Your task to perform on an android device: clear all cookies in the chrome app Image 0: 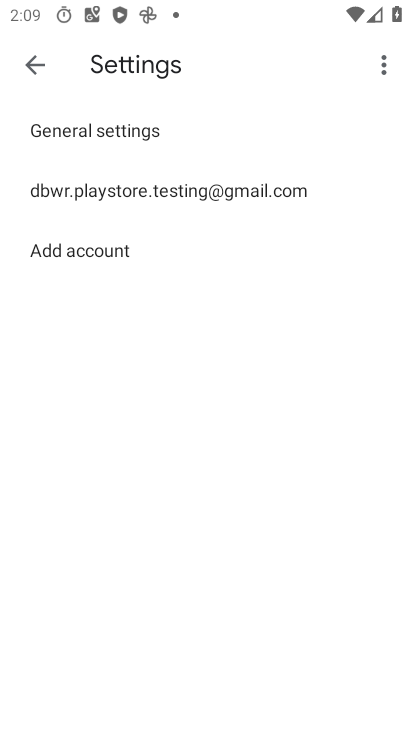
Step 0: press home button
Your task to perform on an android device: clear all cookies in the chrome app Image 1: 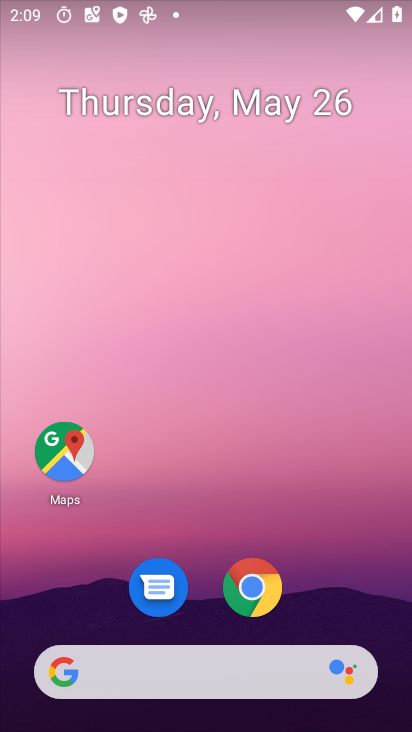
Step 1: drag from (360, 490) to (289, 1)
Your task to perform on an android device: clear all cookies in the chrome app Image 2: 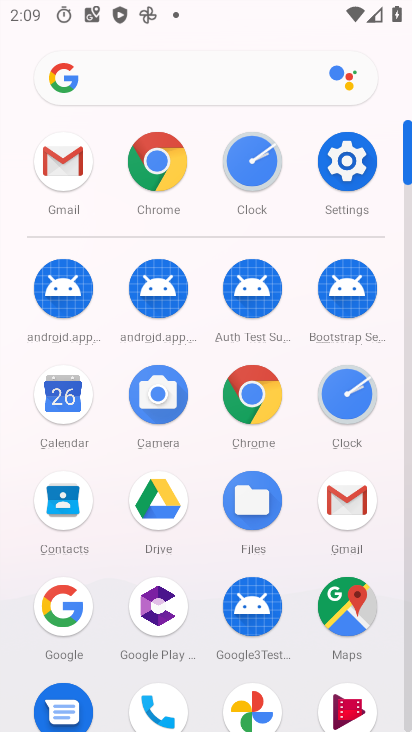
Step 2: click (260, 385)
Your task to perform on an android device: clear all cookies in the chrome app Image 3: 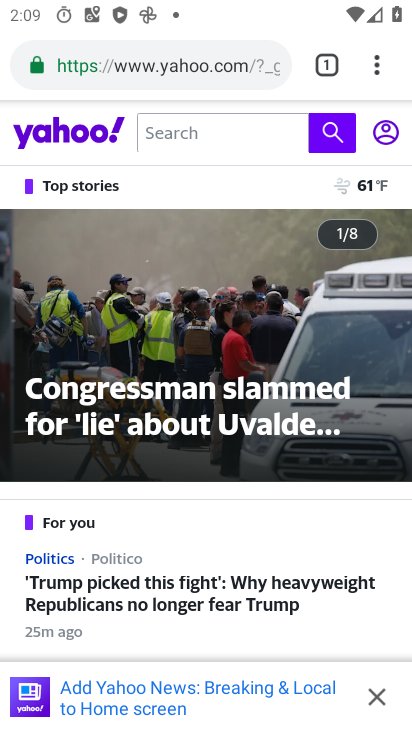
Step 3: click (377, 68)
Your task to perform on an android device: clear all cookies in the chrome app Image 4: 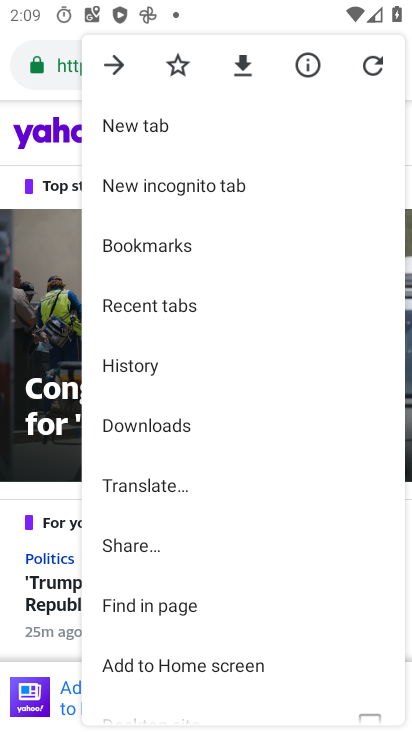
Step 4: drag from (333, 508) to (316, 327)
Your task to perform on an android device: clear all cookies in the chrome app Image 5: 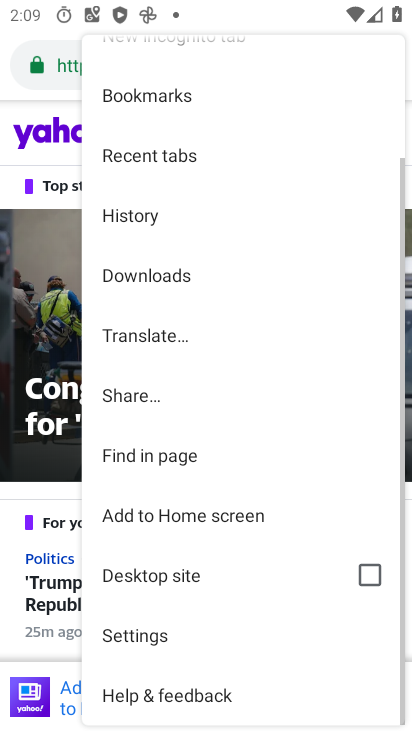
Step 5: drag from (306, 458) to (291, 245)
Your task to perform on an android device: clear all cookies in the chrome app Image 6: 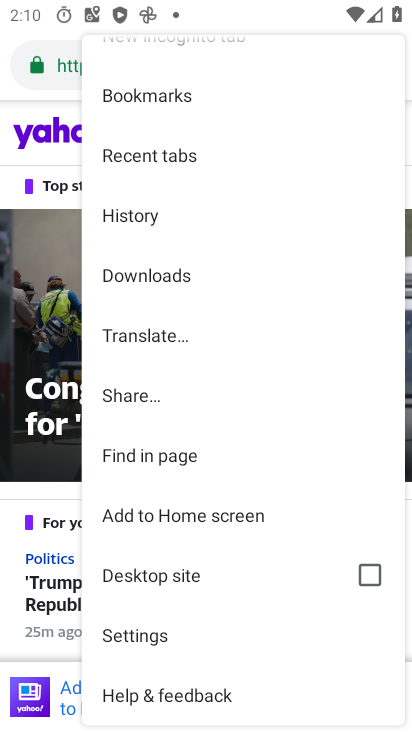
Step 6: click (166, 634)
Your task to perform on an android device: clear all cookies in the chrome app Image 7: 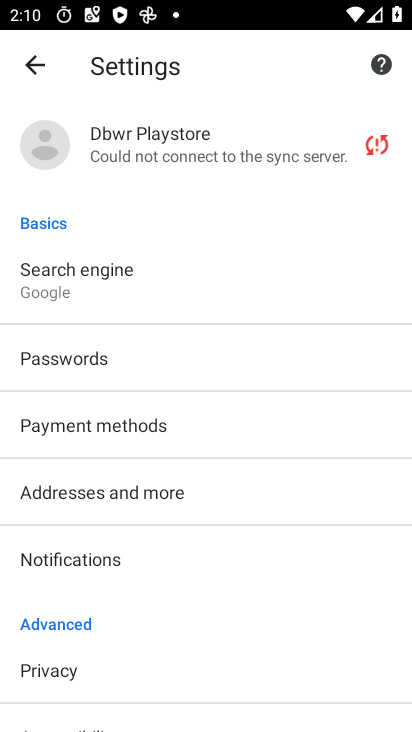
Step 7: drag from (331, 600) to (323, 486)
Your task to perform on an android device: clear all cookies in the chrome app Image 8: 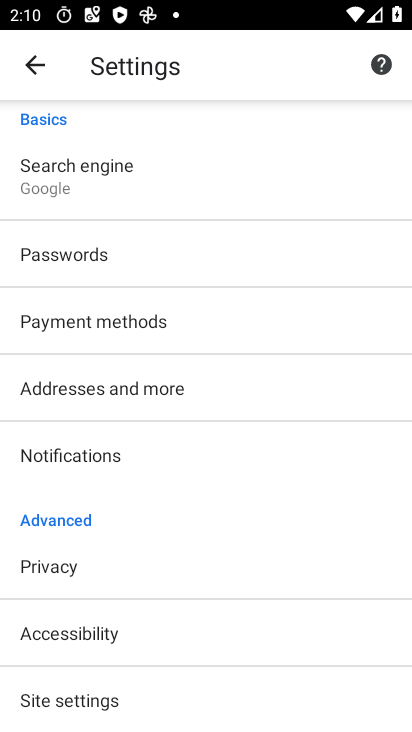
Step 8: drag from (316, 560) to (317, 471)
Your task to perform on an android device: clear all cookies in the chrome app Image 9: 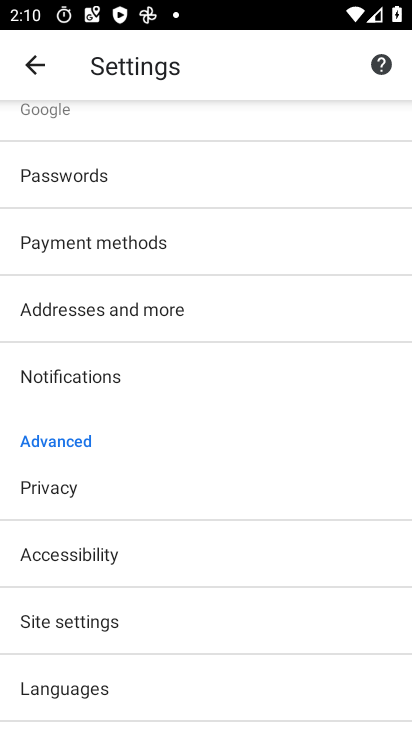
Step 9: drag from (337, 512) to (341, 446)
Your task to perform on an android device: clear all cookies in the chrome app Image 10: 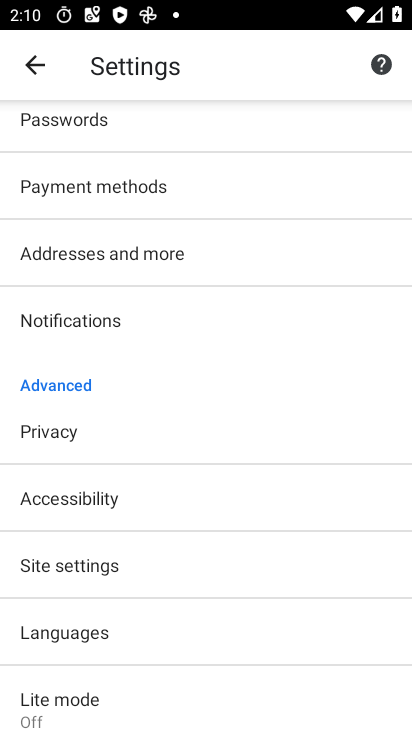
Step 10: drag from (352, 532) to (338, 444)
Your task to perform on an android device: clear all cookies in the chrome app Image 11: 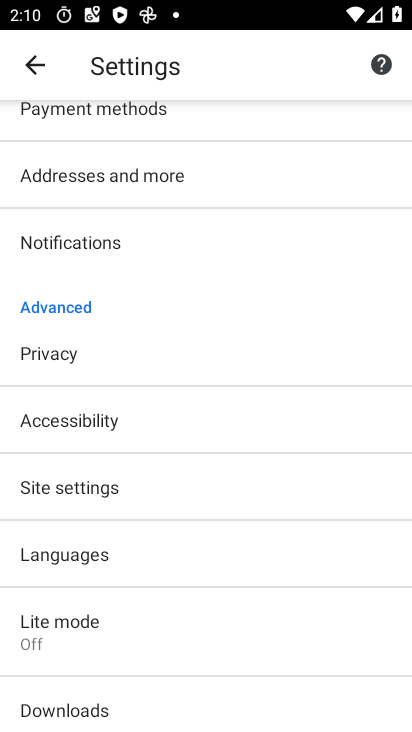
Step 11: drag from (339, 486) to (331, 395)
Your task to perform on an android device: clear all cookies in the chrome app Image 12: 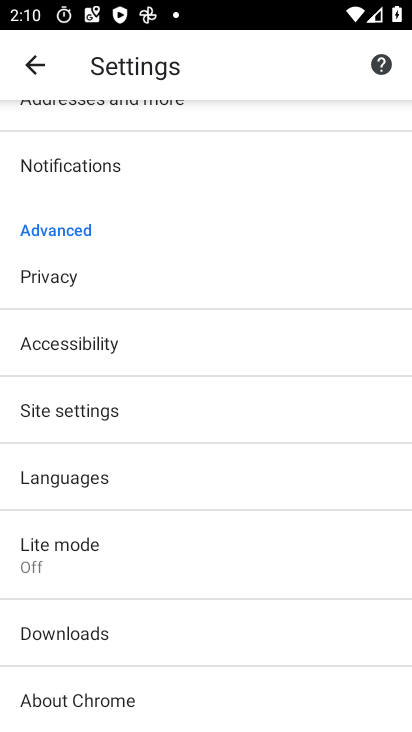
Step 12: drag from (332, 481) to (338, 361)
Your task to perform on an android device: clear all cookies in the chrome app Image 13: 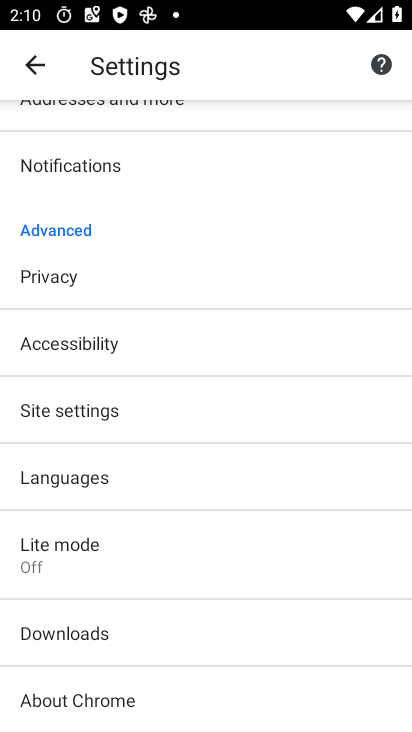
Step 13: click (108, 262)
Your task to perform on an android device: clear all cookies in the chrome app Image 14: 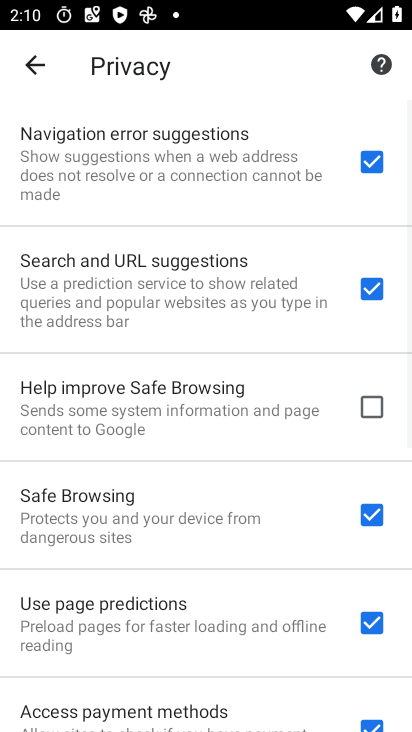
Step 14: drag from (261, 445) to (285, 342)
Your task to perform on an android device: clear all cookies in the chrome app Image 15: 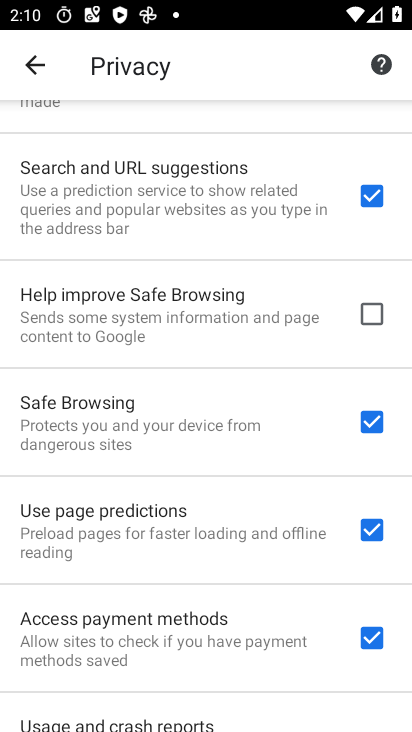
Step 15: drag from (285, 420) to (292, 296)
Your task to perform on an android device: clear all cookies in the chrome app Image 16: 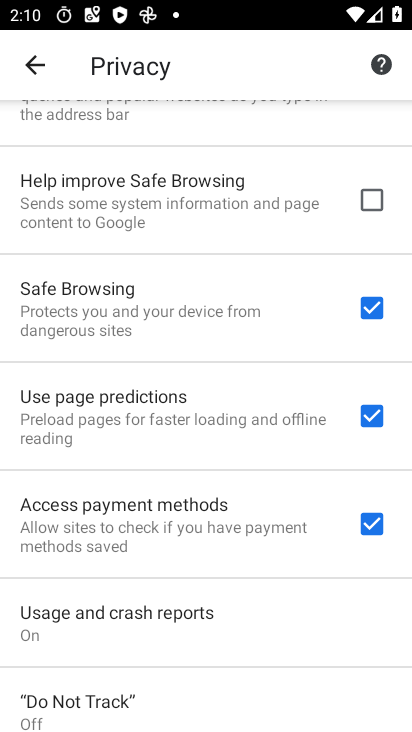
Step 16: drag from (314, 534) to (289, 348)
Your task to perform on an android device: clear all cookies in the chrome app Image 17: 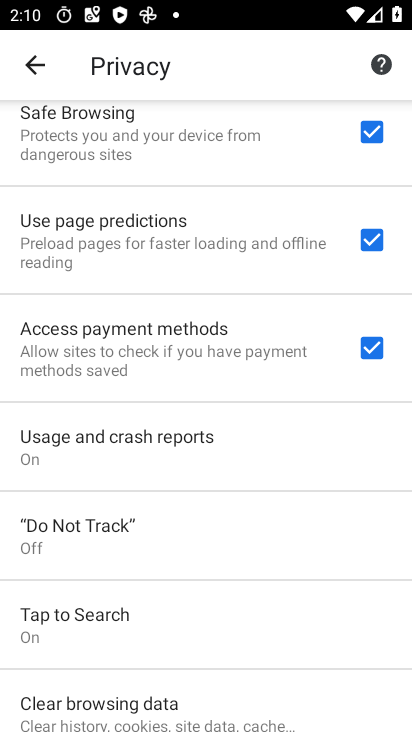
Step 17: drag from (286, 489) to (289, 332)
Your task to perform on an android device: clear all cookies in the chrome app Image 18: 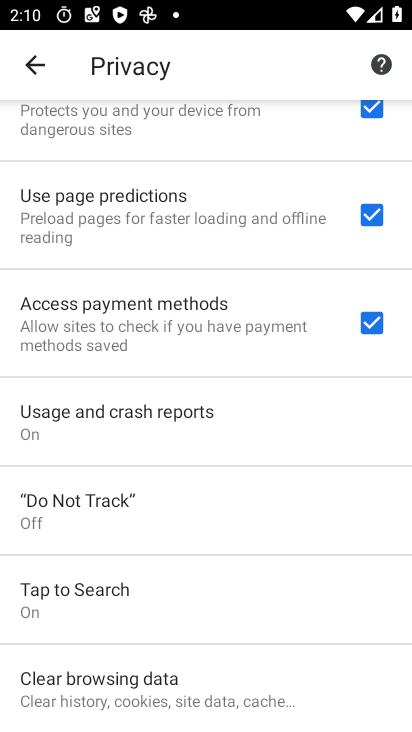
Step 18: click (267, 695)
Your task to perform on an android device: clear all cookies in the chrome app Image 19: 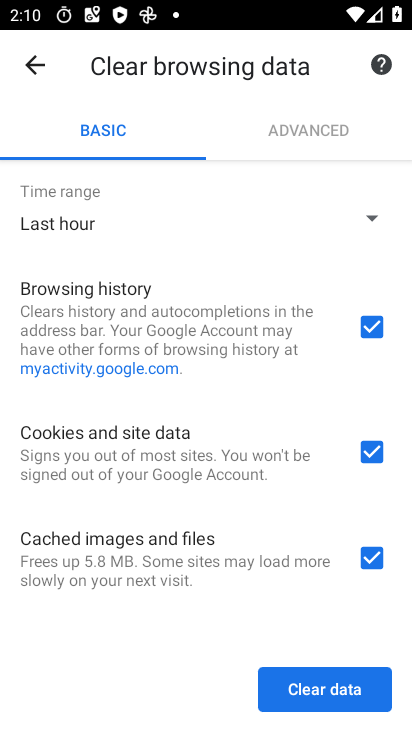
Step 19: click (303, 690)
Your task to perform on an android device: clear all cookies in the chrome app Image 20: 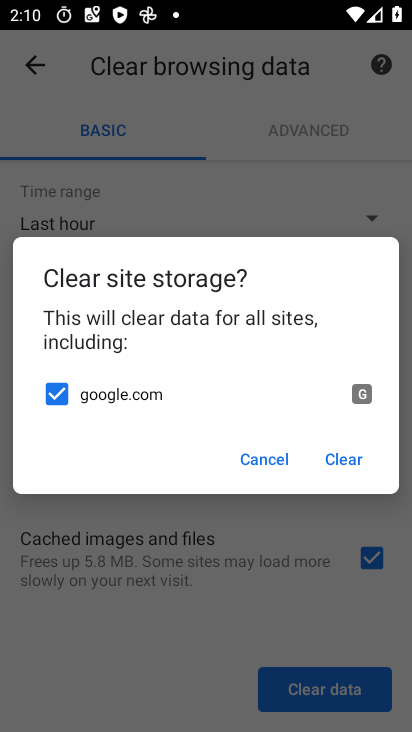
Step 20: click (333, 469)
Your task to perform on an android device: clear all cookies in the chrome app Image 21: 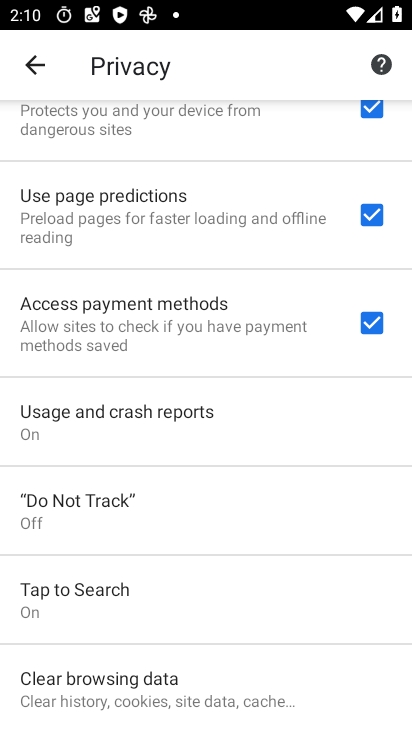
Step 21: task complete